Your task to perform on an android device: Open maps Image 0: 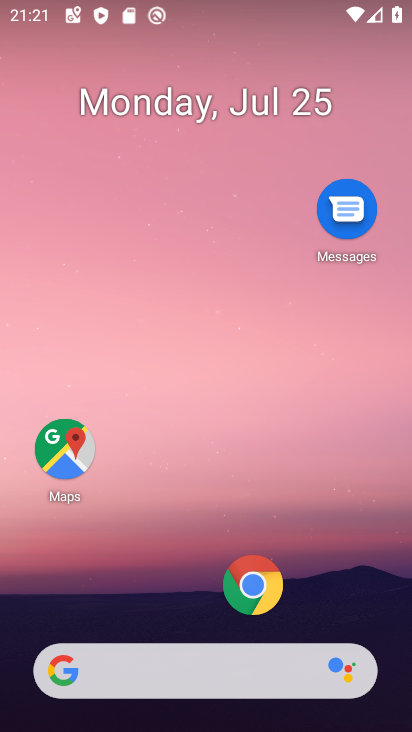
Step 0: press home button
Your task to perform on an android device: Open maps Image 1: 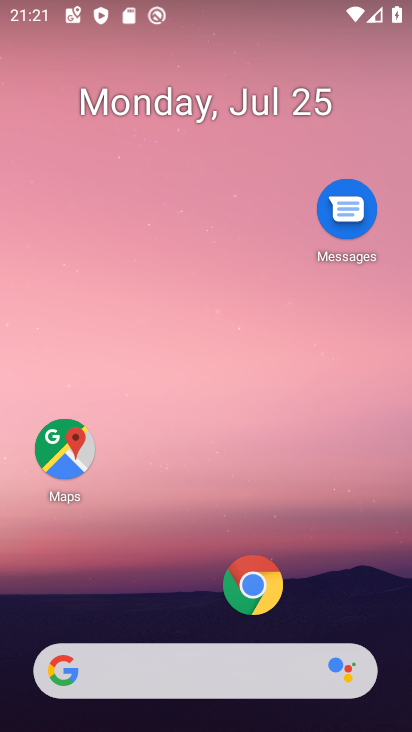
Step 1: click (69, 446)
Your task to perform on an android device: Open maps Image 2: 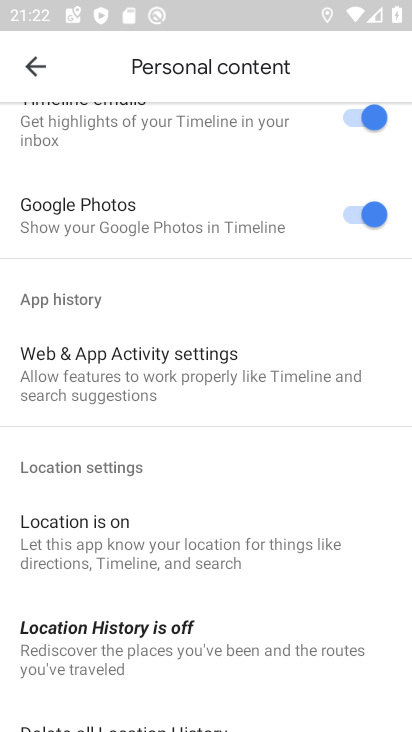
Step 2: click (32, 72)
Your task to perform on an android device: Open maps Image 3: 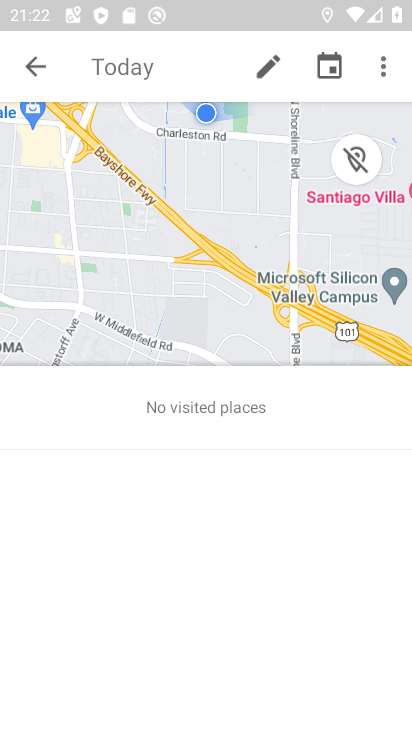
Step 3: click (32, 73)
Your task to perform on an android device: Open maps Image 4: 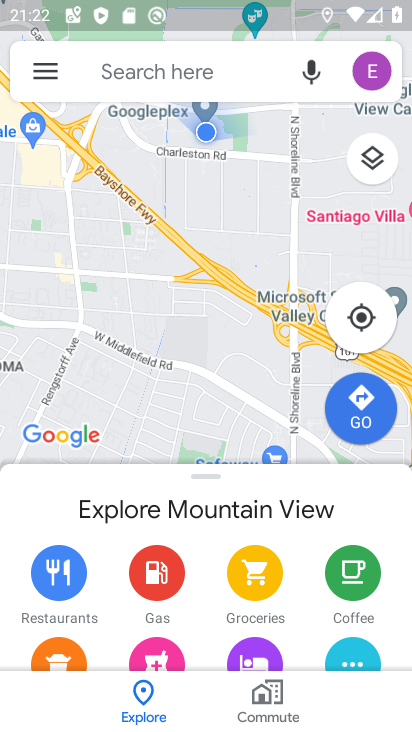
Step 4: task complete